Your task to perform on an android device: clear all cookies in the chrome app Image 0: 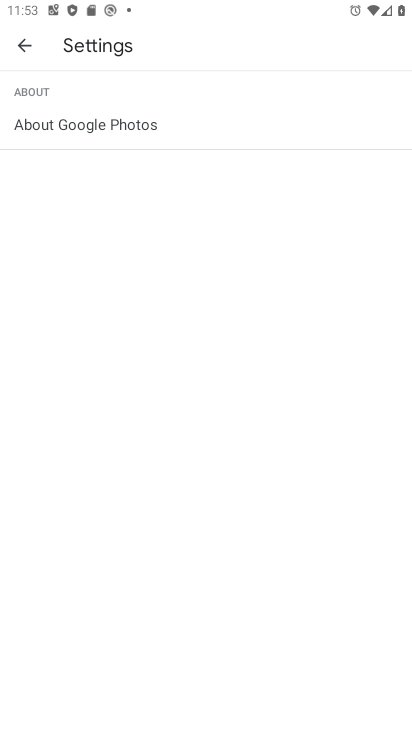
Step 0: press home button
Your task to perform on an android device: clear all cookies in the chrome app Image 1: 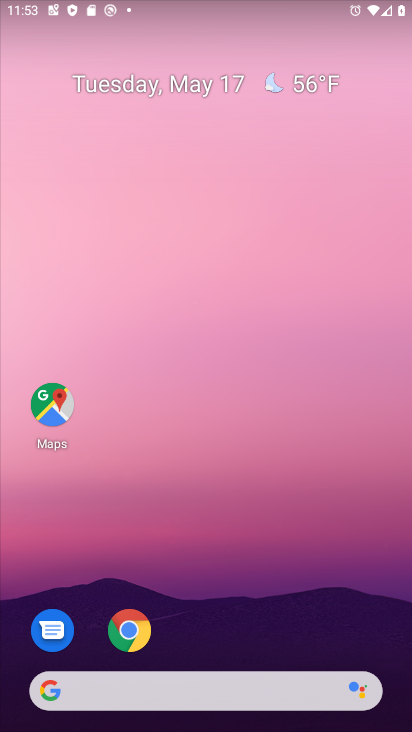
Step 1: drag from (351, 626) to (299, 244)
Your task to perform on an android device: clear all cookies in the chrome app Image 2: 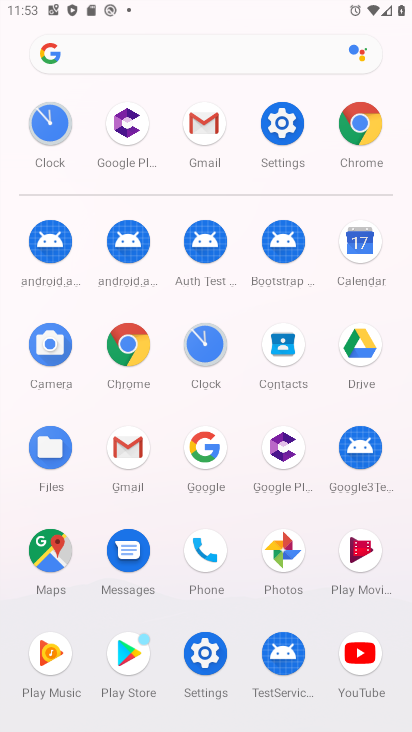
Step 2: click (141, 356)
Your task to perform on an android device: clear all cookies in the chrome app Image 3: 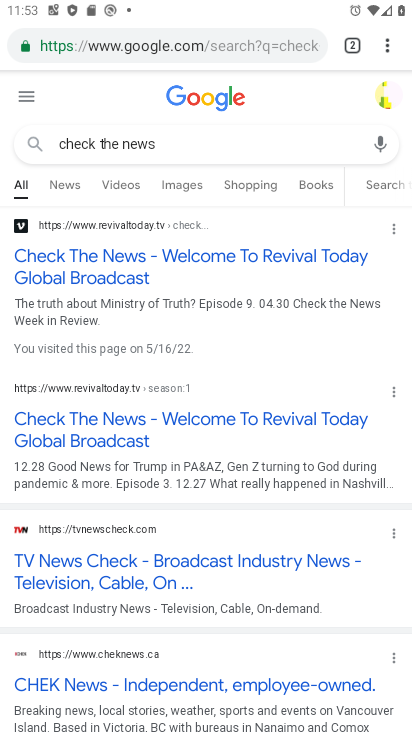
Step 3: drag from (385, 54) to (250, 264)
Your task to perform on an android device: clear all cookies in the chrome app Image 4: 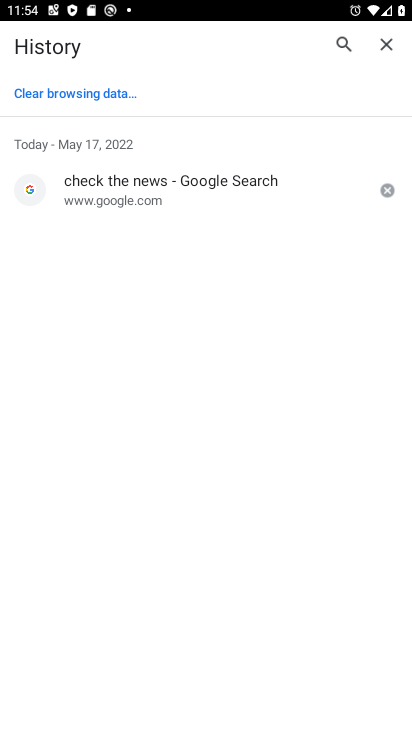
Step 4: click (69, 89)
Your task to perform on an android device: clear all cookies in the chrome app Image 5: 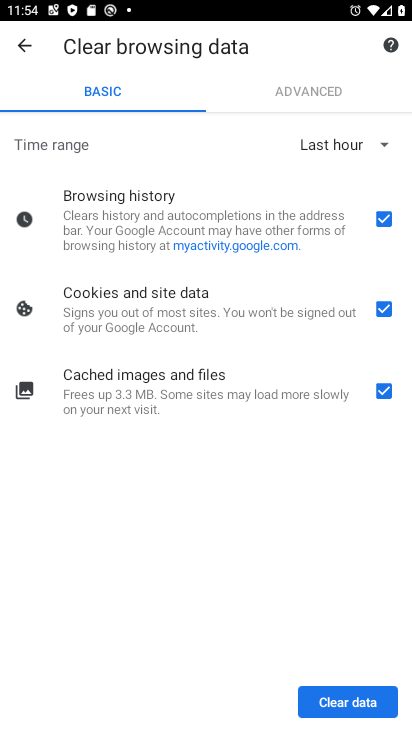
Step 5: click (378, 212)
Your task to perform on an android device: clear all cookies in the chrome app Image 6: 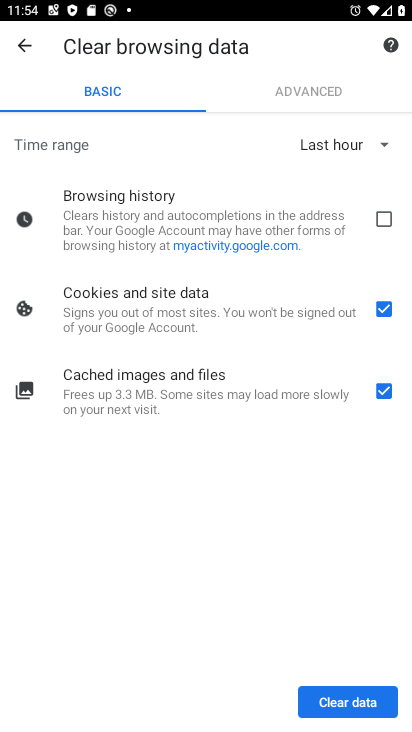
Step 6: click (380, 392)
Your task to perform on an android device: clear all cookies in the chrome app Image 7: 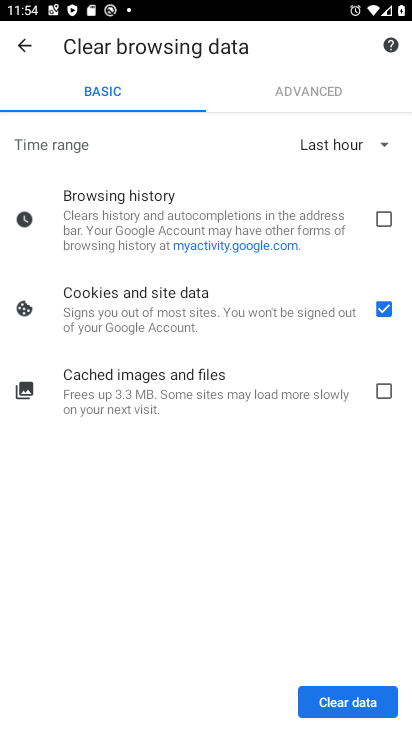
Step 7: click (336, 711)
Your task to perform on an android device: clear all cookies in the chrome app Image 8: 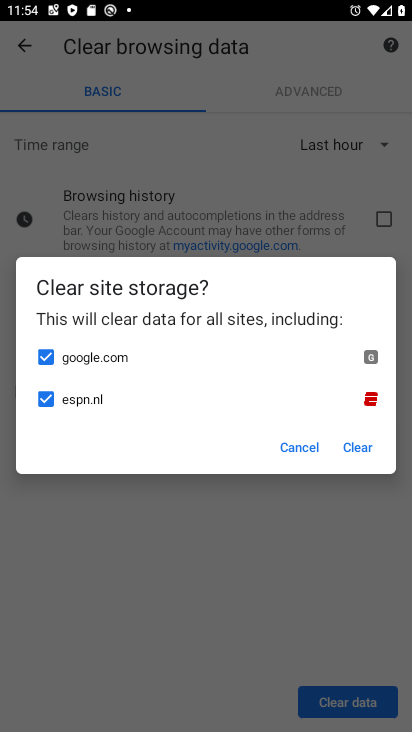
Step 8: click (350, 441)
Your task to perform on an android device: clear all cookies in the chrome app Image 9: 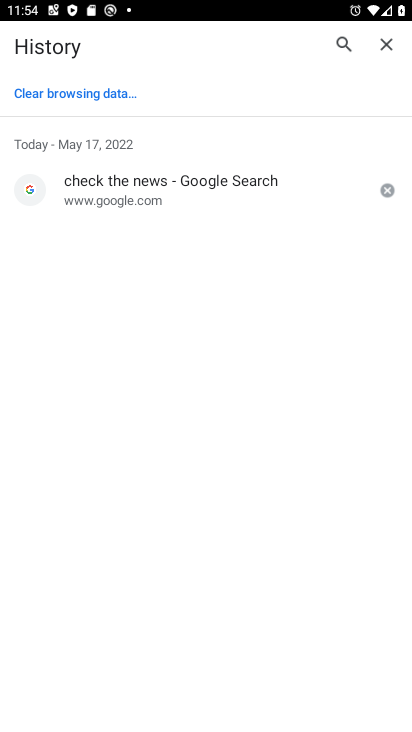
Step 9: task complete